Your task to perform on an android device: create a new album in the google photos Image 0: 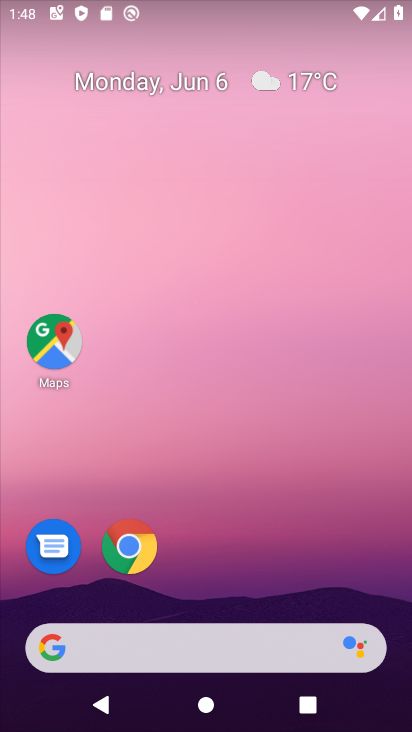
Step 0: drag from (269, 569) to (273, 154)
Your task to perform on an android device: create a new album in the google photos Image 1: 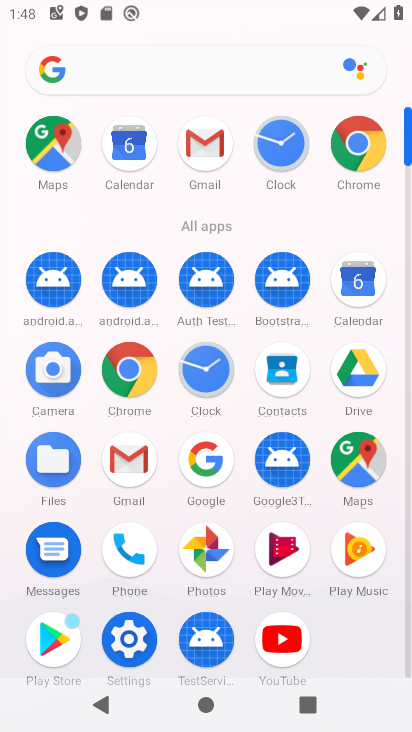
Step 1: click (202, 540)
Your task to perform on an android device: create a new album in the google photos Image 2: 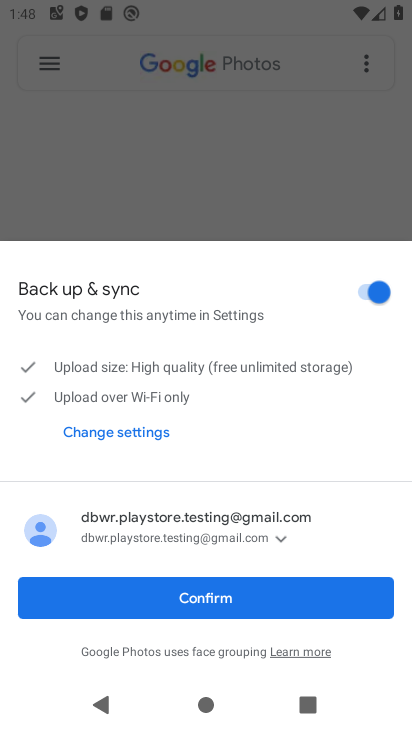
Step 2: click (231, 606)
Your task to perform on an android device: create a new album in the google photos Image 3: 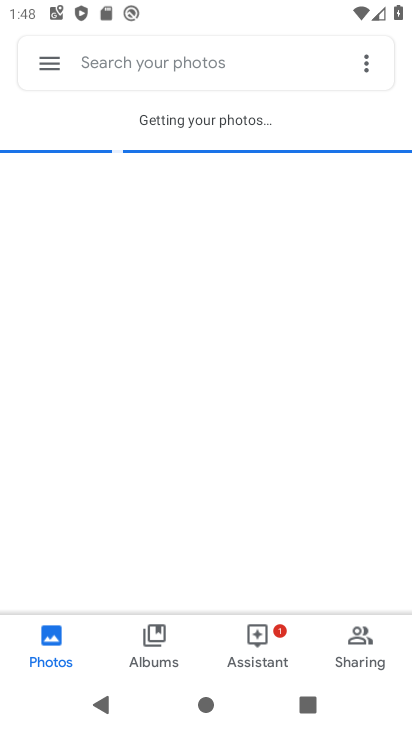
Step 3: click (150, 639)
Your task to perform on an android device: create a new album in the google photos Image 4: 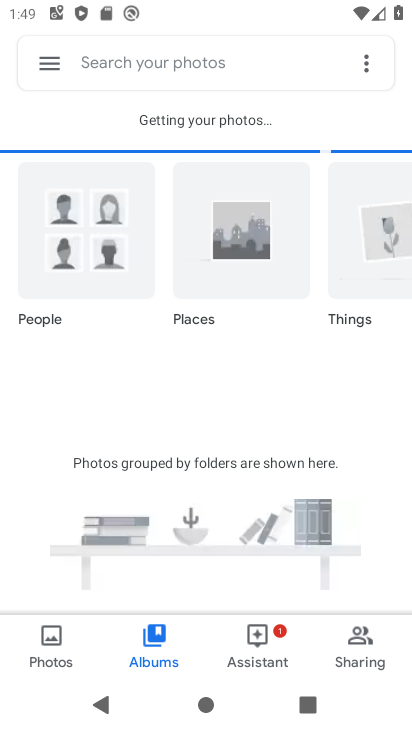
Step 4: click (368, 67)
Your task to perform on an android device: create a new album in the google photos Image 5: 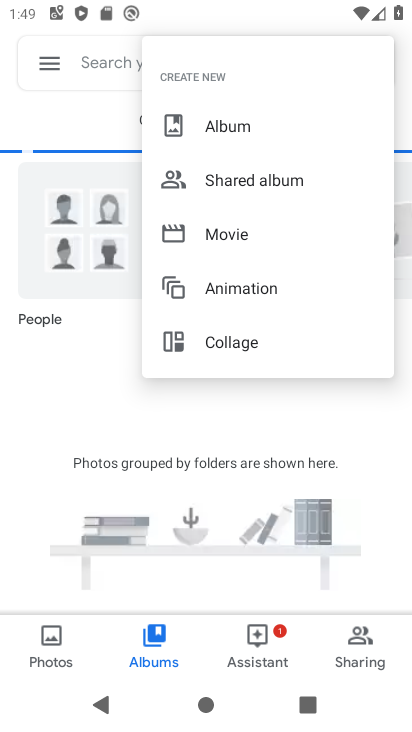
Step 5: click (249, 134)
Your task to perform on an android device: create a new album in the google photos Image 6: 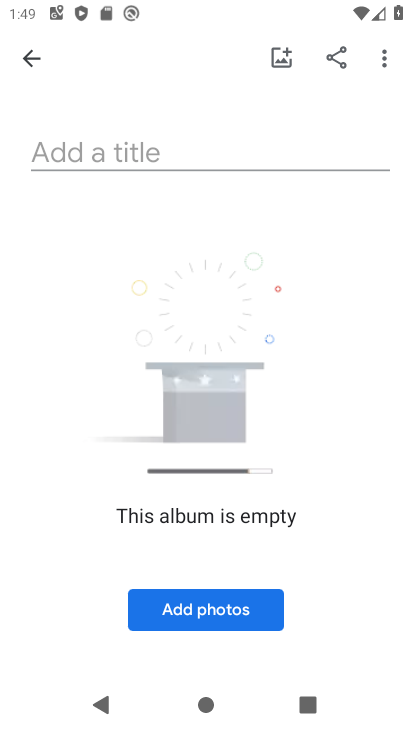
Step 6: click (251, 146)
Your task to perform on an android device: create a new album in the google photos Image 7: 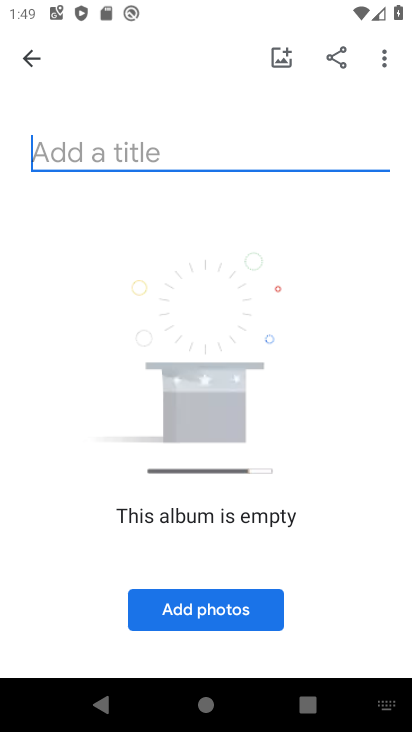
Step 7: type "rvy"
Your task to perform on an android device: create a new album in the google photos Image 8: 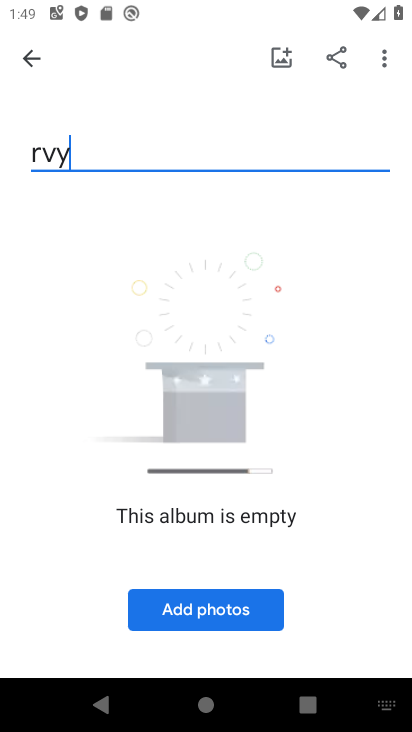
Step 8: click (211, 619)
Your task to perform on an android device: create a new album in the google photos Image 9: 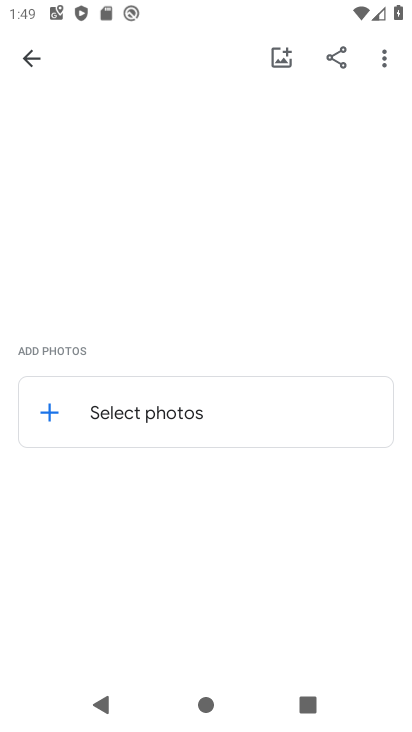
Step 9: click (176, 436)
Your task to perform on an android device: create a new album in the google photos Image 10: 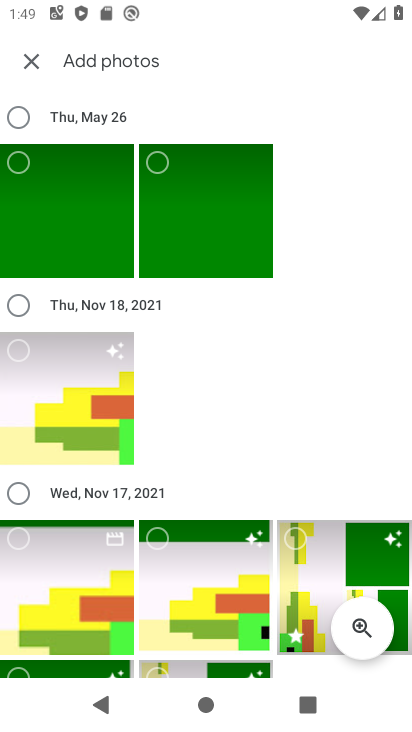
Step 10: click (53, 364)
Your task to perform on an android device: create a new album in the google photos Image 11: 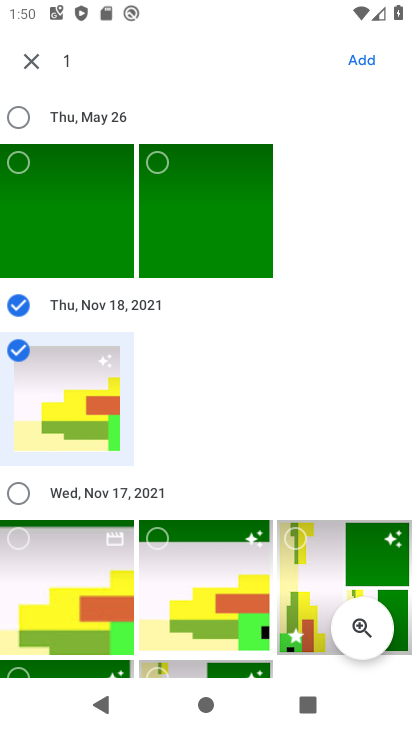
Step 11: click (370, 58)
Your task to perform on an android device: create a new album in the google photos Image 12: 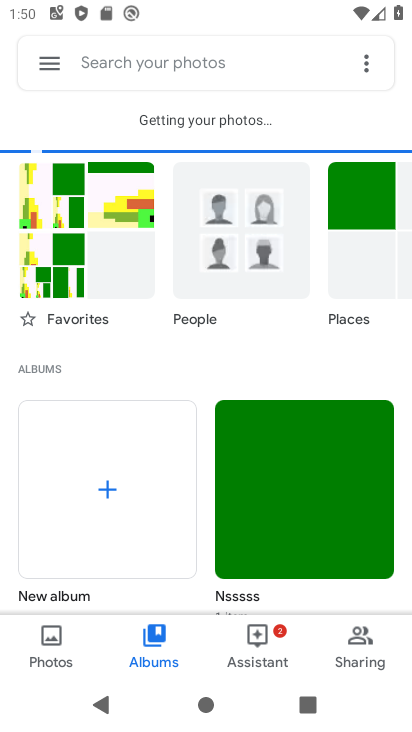
Step 12: task complete